Your task to perform on an android device: change alarm snooze length Image 0: 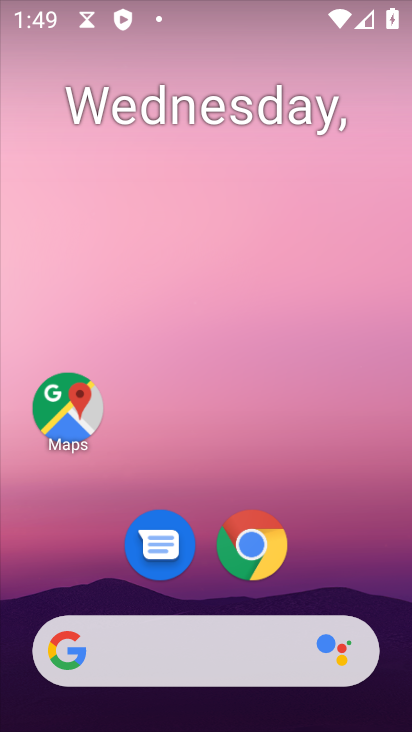
Step 0: drag from (332, 604) to (332, 156)
Your task to perform on an android device: change alarm snooze length Image 1: 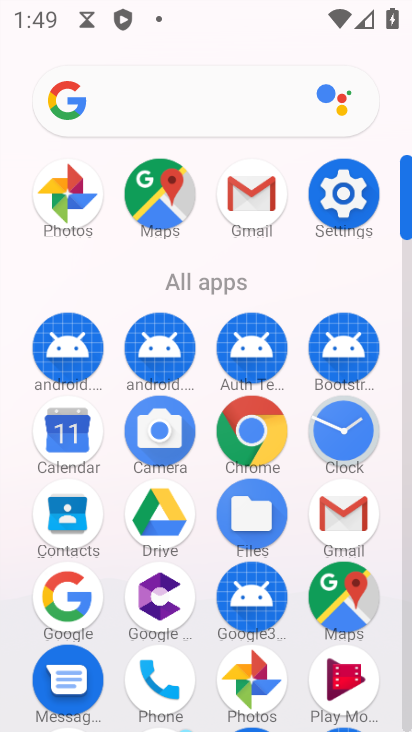
Step 1: click (366, 433)
Your task to perform on an android device: change alarm snooze length Image 2: 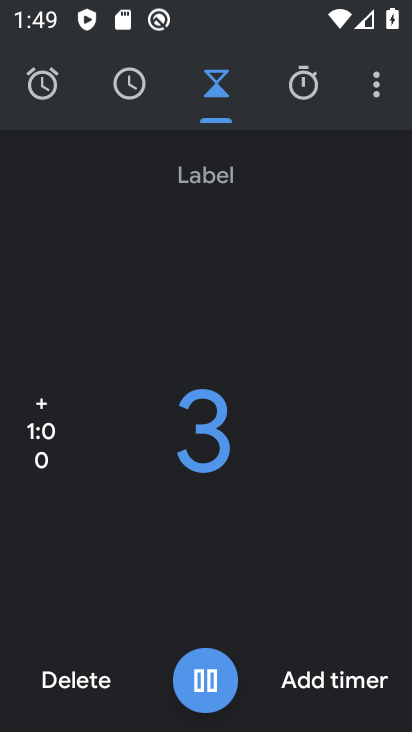
Step 2: click (378, 90)
Your task to perform on an android device: change alarm snooze length Image 3: 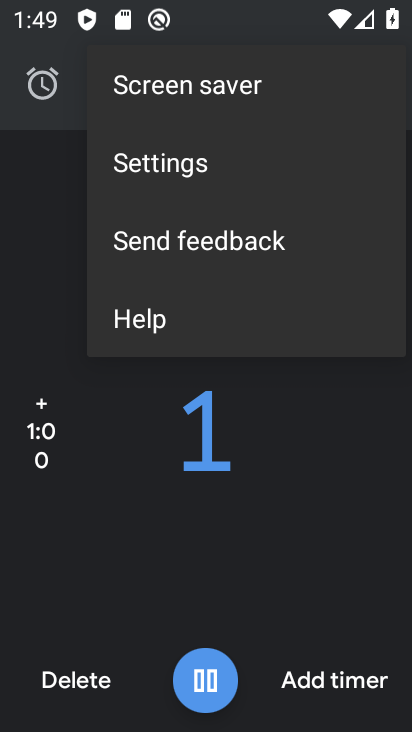
Step 3: click (299, 163)
Your task to perform on an android device: change alarm snooze length Image 4: 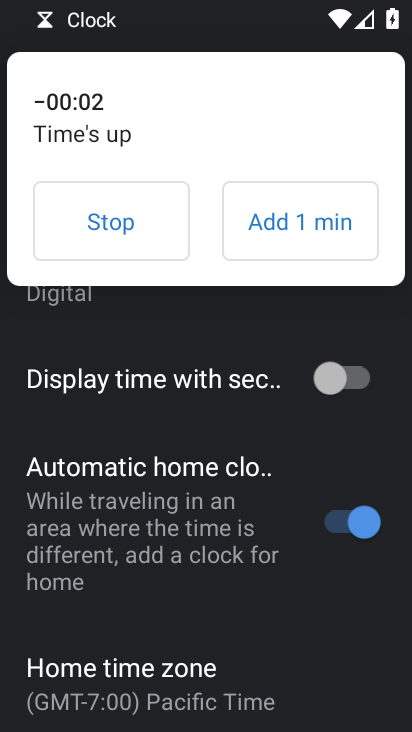
Step 4: drag from (192, 629) to (215, 303)
Your task to perform on an android device: change alarm snooze length Image 5: 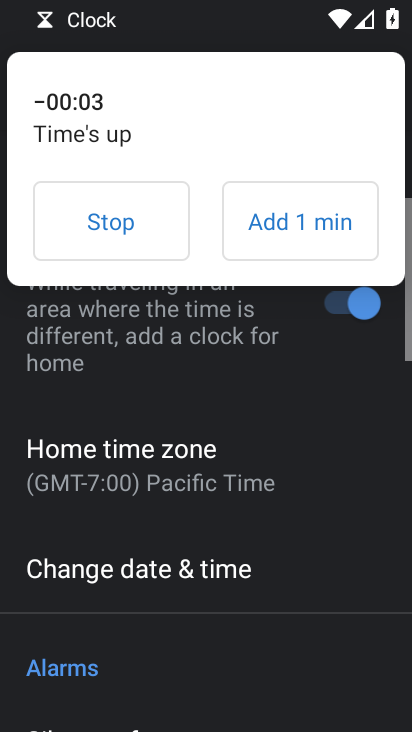
Step 5: click (149, 225)
Your task to perform on an android device: change alarm snooze length Image 6: 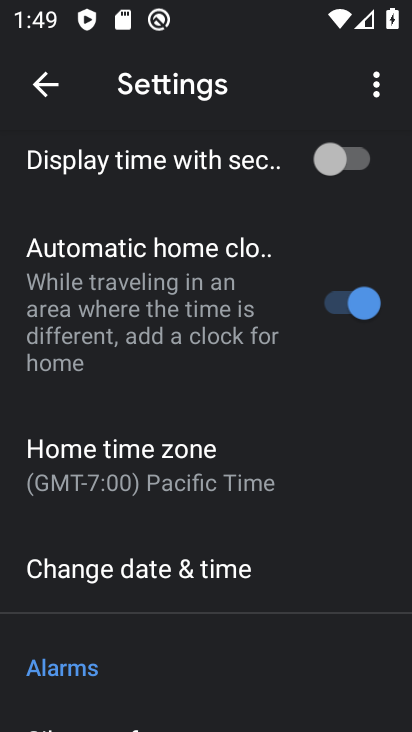
Step 6: drag from (230, 639) to (266, 306)
Your task to perform on an android device: change alarm snooze length Image 7: 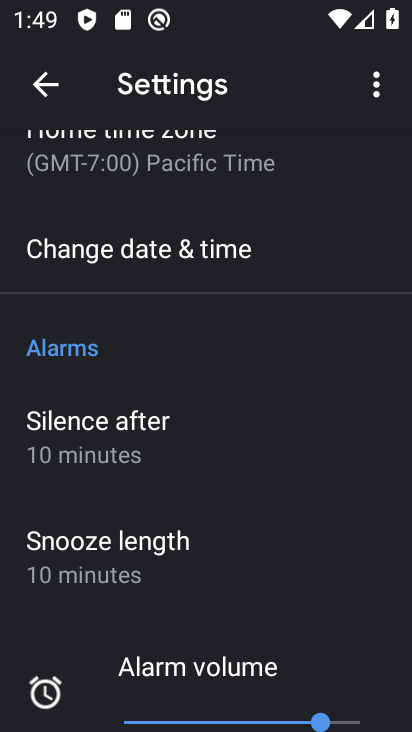
Step 7: click (164, 559)
Your task to perform on an android device: change alarm snooze length Image 8: 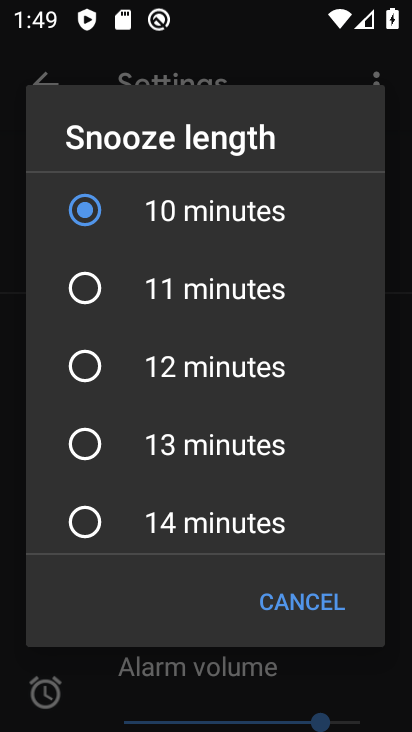
Step 8: click (205, 300)
Your task to perform on an android device: change alarm snooze length Image 9: 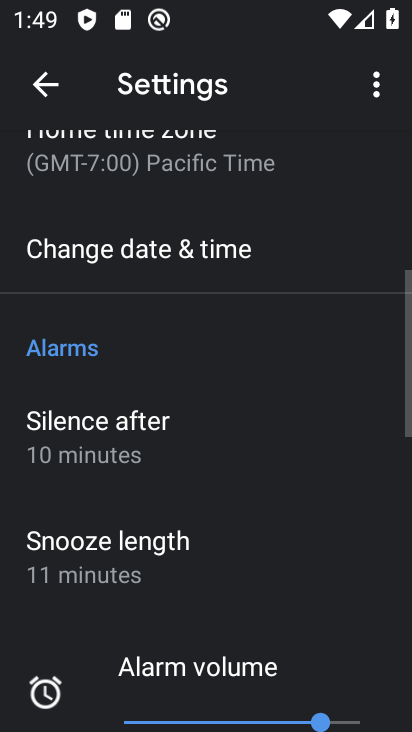
Step 9: task complete